Your task to perform on an android device: Open calendar and show me the fourth week of next month Image 0: 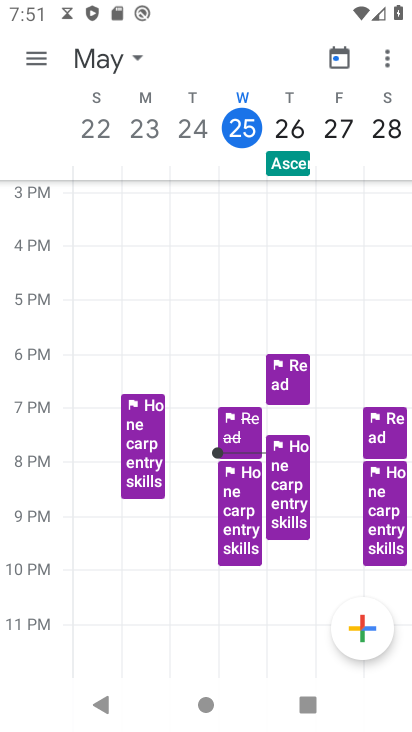
Step 0: press home button
Your task to perform on an android device: Open calendar and show me the fourth week of next month Image 1: 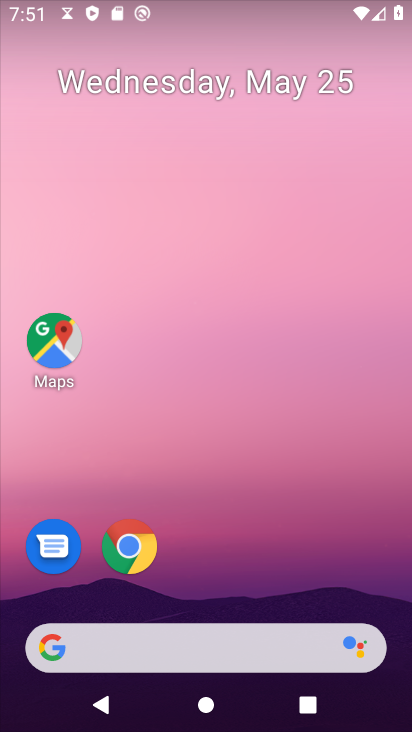
Step 1: drag from (230, 586) to (214, 28)
Your task to perform on an android device: Open calendar and show me the fourth week of next month Image 2: 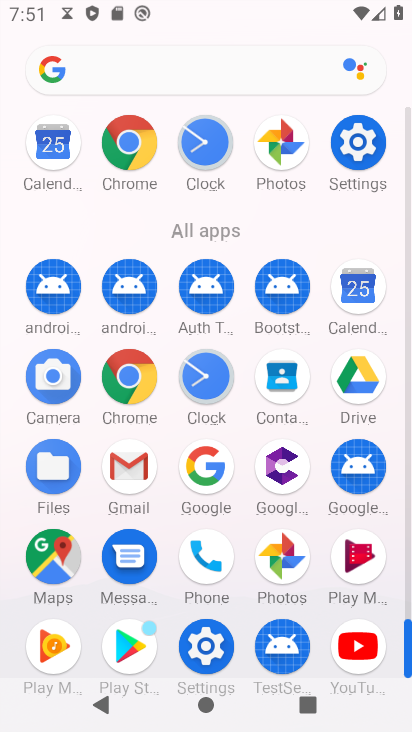
Step 2: click (204, 414)
Your task to perform on an android device: Open calendar and show me the fourth week of next month Image 3: 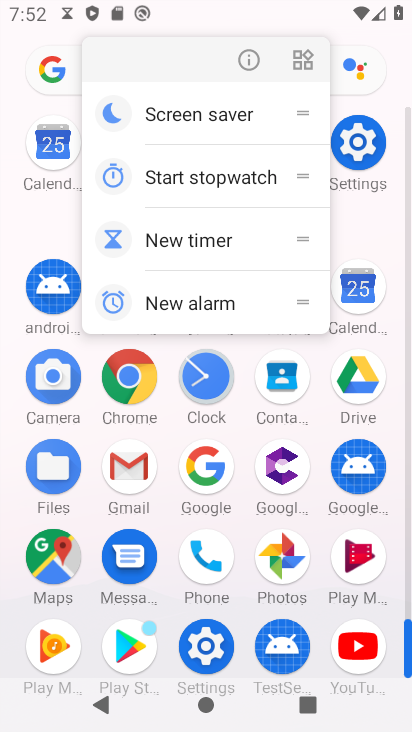
Step 3: click (190, 375)
Your task to perform on an android device: Open calendar and show me the fourth week of next month Image 4: 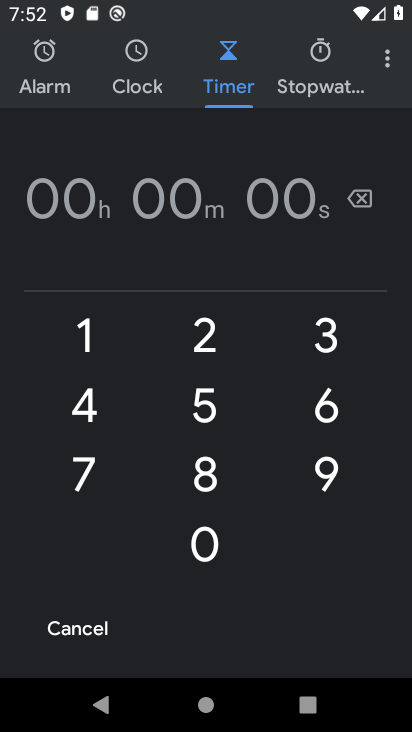
Step 4: click (299, 76)
Your task to perform on an android device: Open calendar and show me the fourth week of next month Image 5: 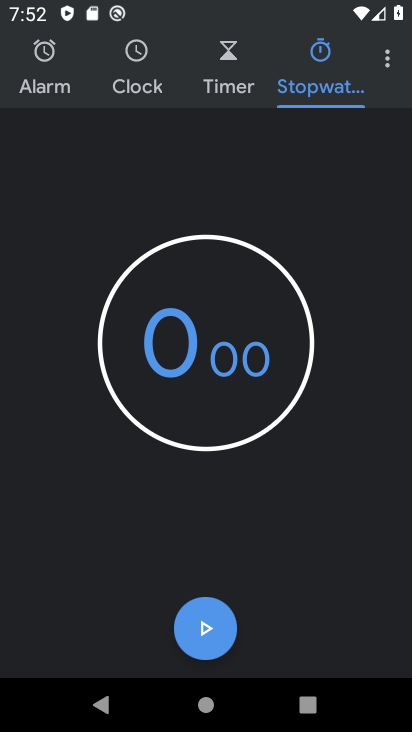
Step 5: click (214, 618)
Your task to perform on an android device: Open calendar and show me the fourth week of next month Image 6: 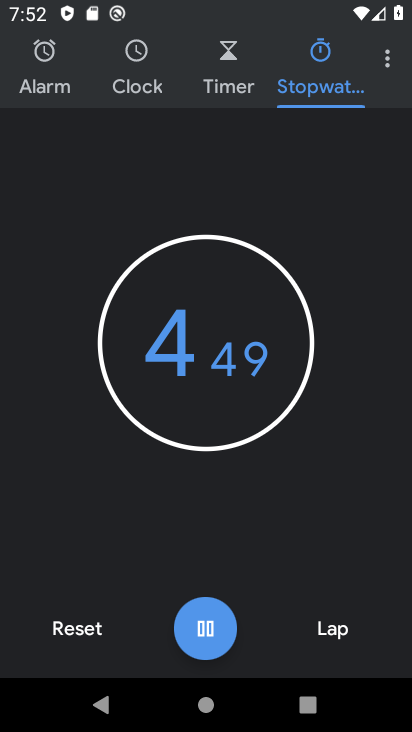
Step 6: click (209, 634)
Your task to perform on an android device: Open calendar and show me the fourth week of next month Image 7: 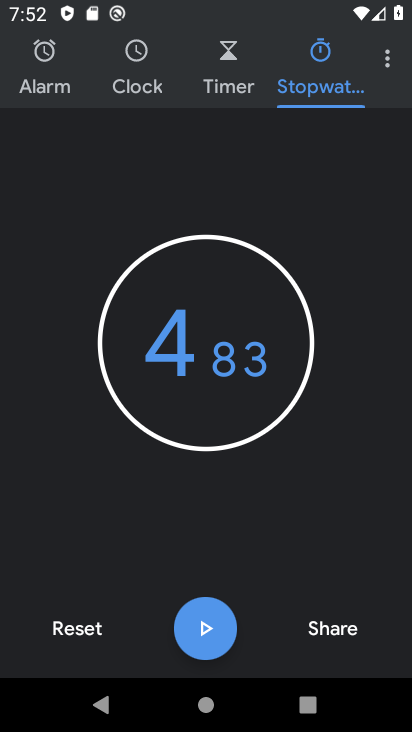
Step 7: task complete